Your task to perform on an android device: change the clock style Image 0: 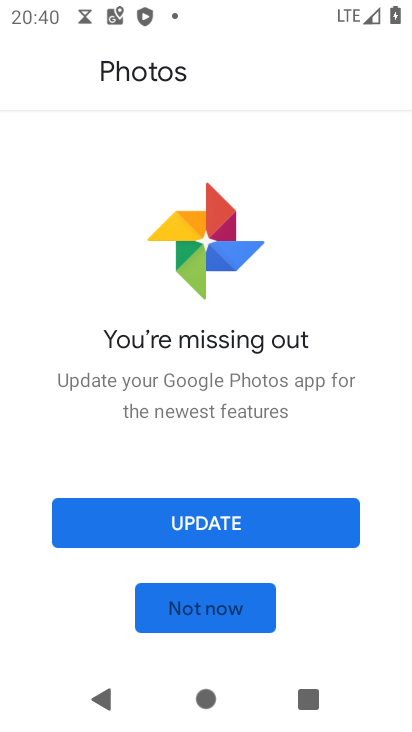
Step 0: click (210, 517)
Your task to perform on an android device: change the clock style Image 1: 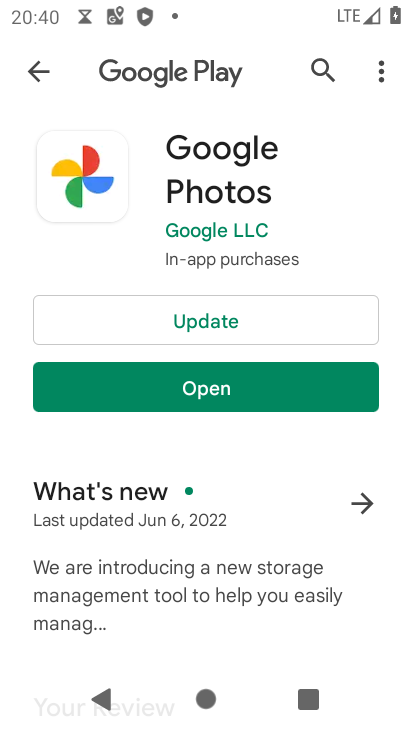
Step 1: click (191, 316)
Your task to perform on an android device: change the clock style Image 2: 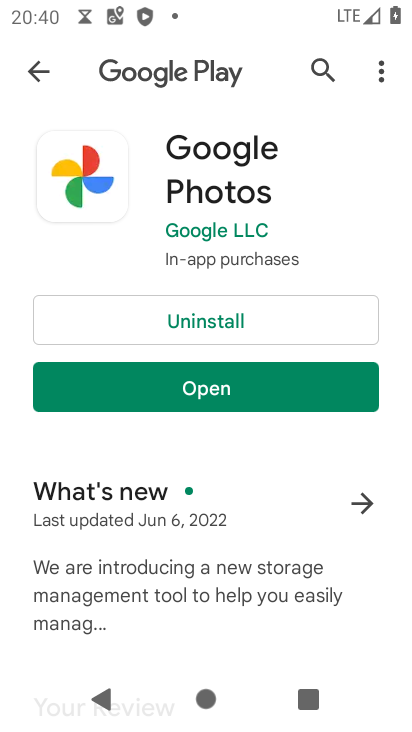
Step 2: click (212, 392)
Your task to perform on an android device: change the clock style Image 3: 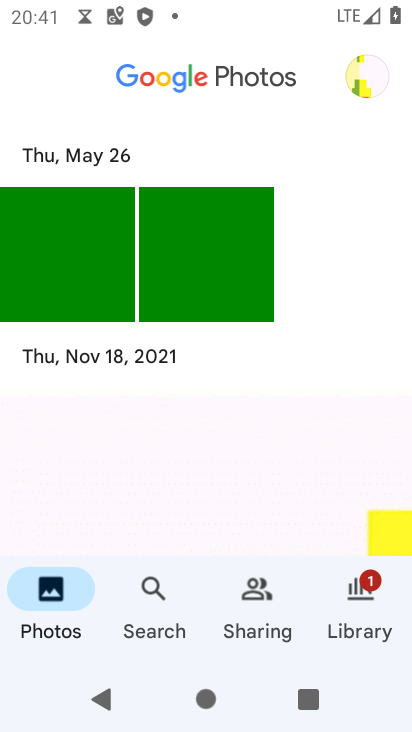
Step 3: press home button
Your task to perform on an android device: change the clock style Image 4: 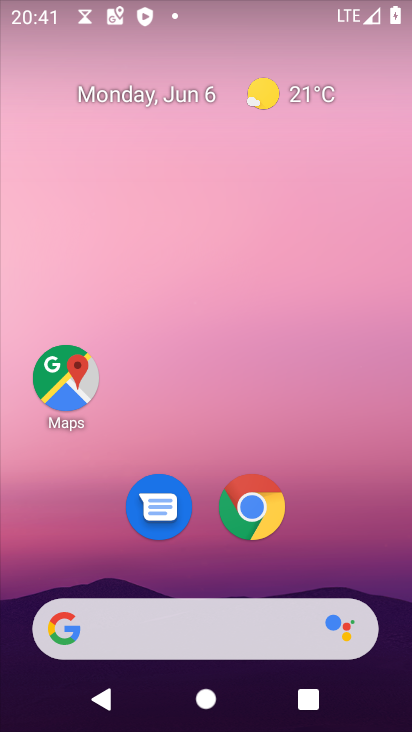
Step 4: drag from (213, 555) to (255, 21)
Your task to perform on an android device: change the clock style Image 5: 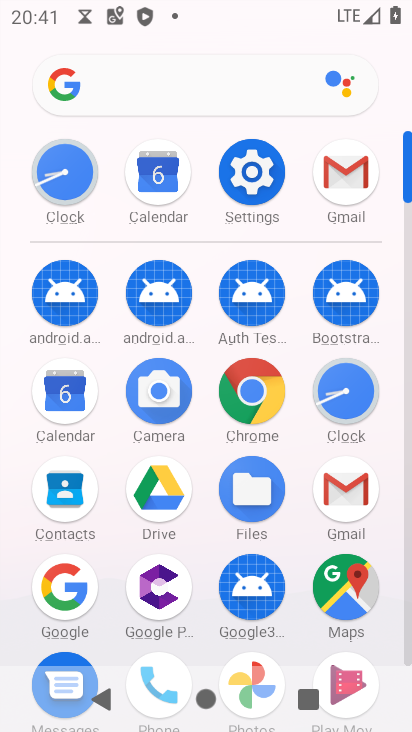
Step 5: click (351, 395)
Your task to perform on an android device: change the clock style Image 6: 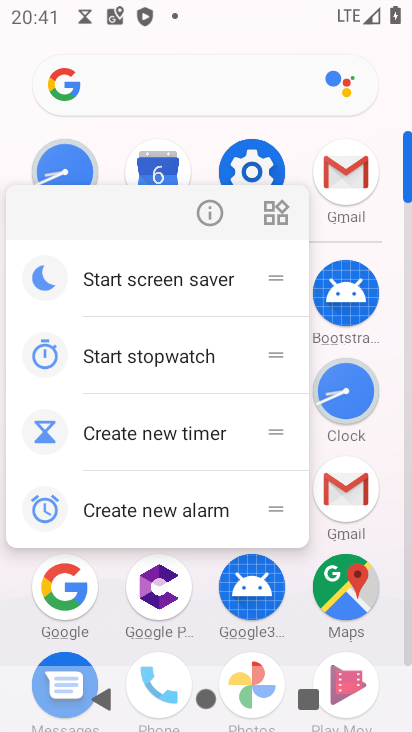
Step 6: click (350, 382)
Your task to perform on an android device: change the clock style Image 7: 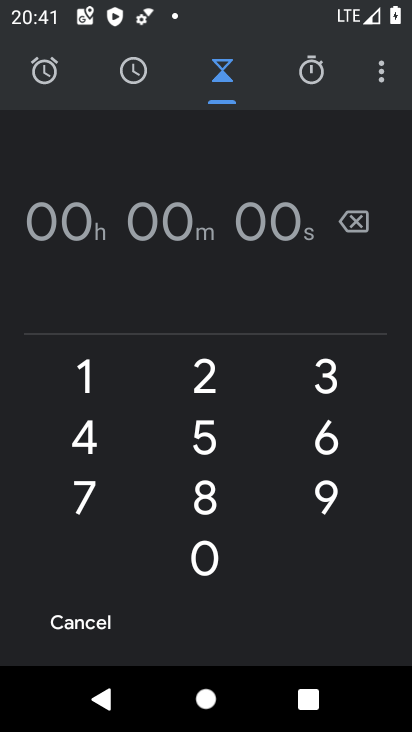
Step 7: click (387, 70)
Your task to perform on an android device: change the clock style Image 8: 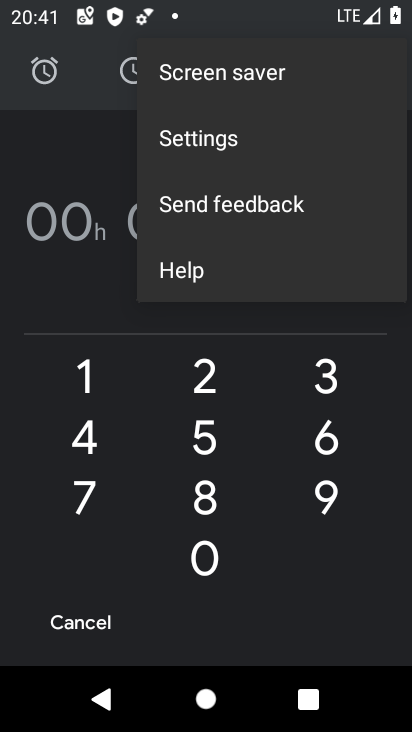
Step 8: click (218, 142)
Your task to perform on an android device: change the clock style Image 9: 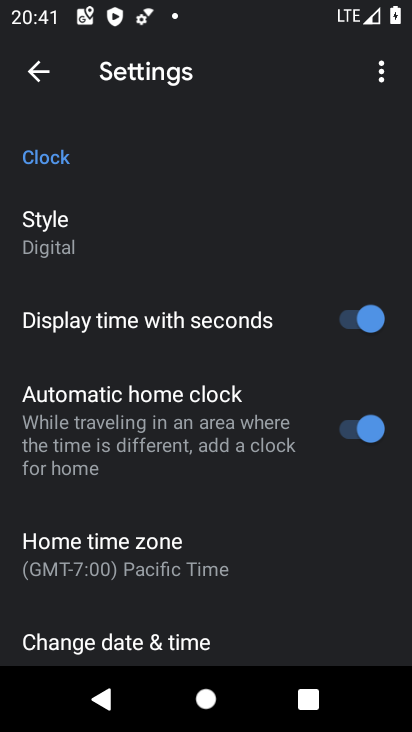
Step 9: click (62, 250)
Your task to perform on an android device: change the clock style Image 10: 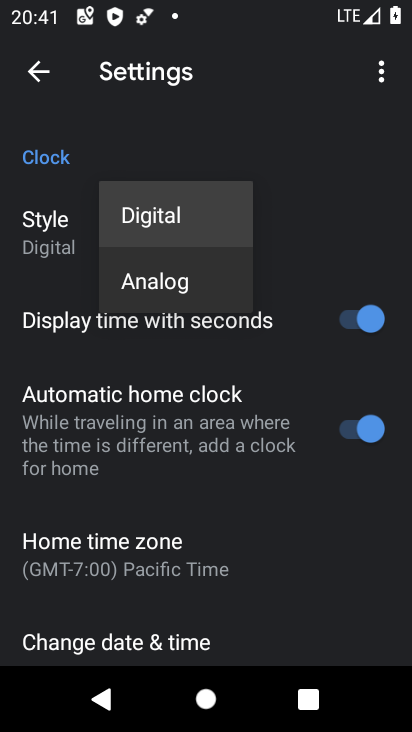
Step 10: click (190, 291)
Your task to perform on an android device: change the clock style Image 11: 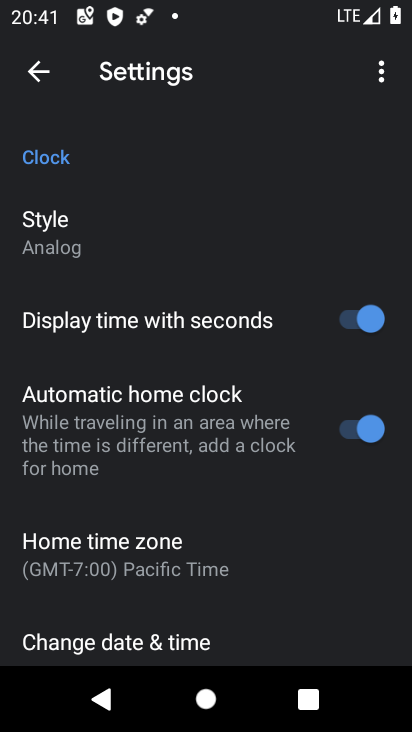
Step 11: task complete